Your task to perform on an android device: allow cookies in the chrome app Image 0: 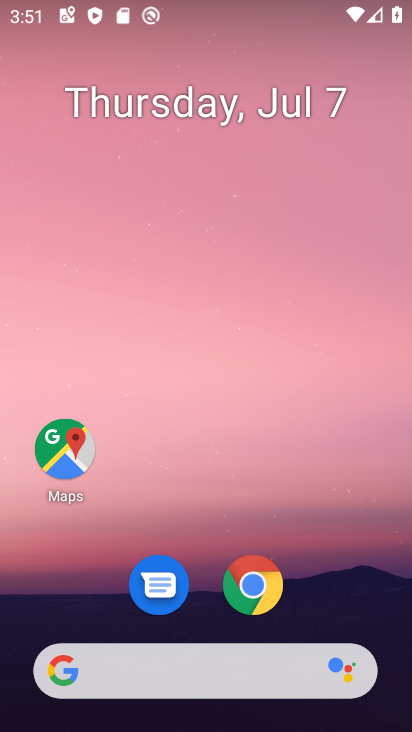
Step 0: click (261, 582)
Your task to perform on an android device: allow cookies in the chrome app Image 1: 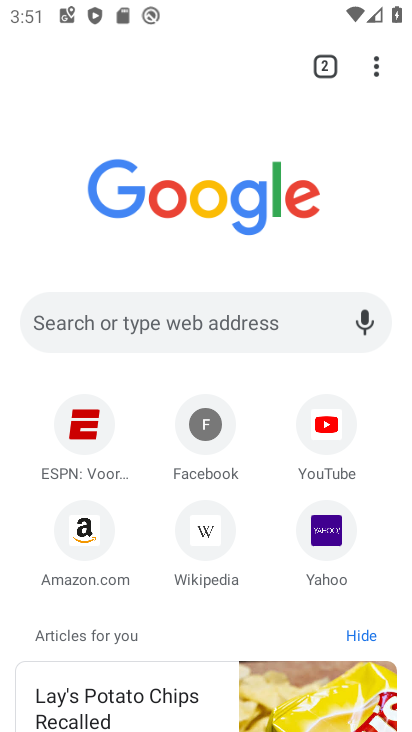
Step 1: click (377, 72)
Your task to perform on an android device: allow cookies in the chrome app Image 2: 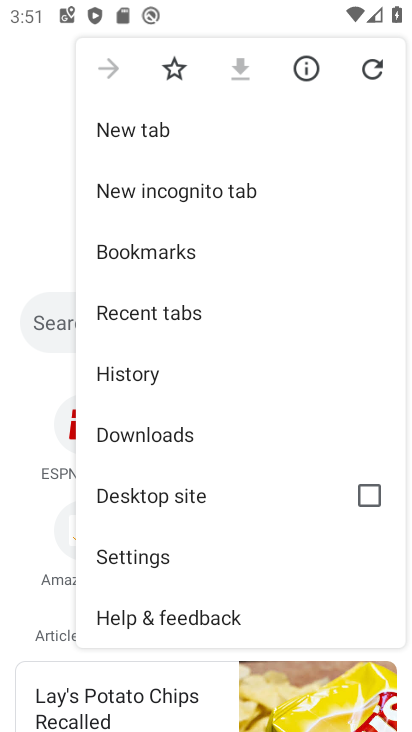
Step 2: click (127, 548)
Your task to perform on an android device: allow cookies in the chrome app Image 3: 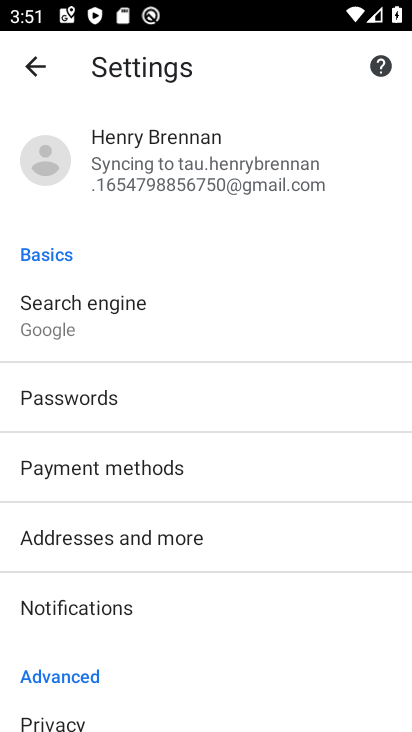
Step 3: drag from (141, 624) to (177, 417)
Your task to perform on an android device: allow cookies in the chrome app Image 4: 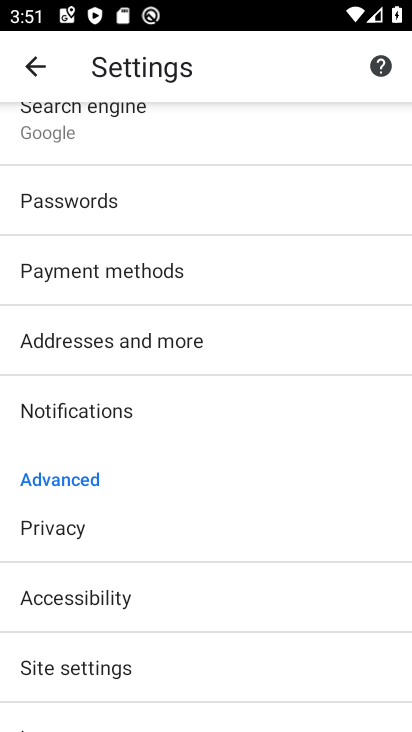
Step 4: click (105, 668)
Your task to perform on an android device: allow cookies in the chrome app Image 5: 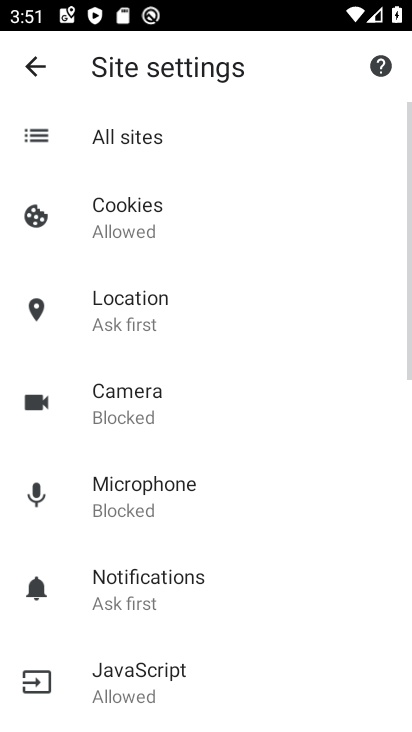
Step 5: click (155, 202)
Your task to perform on an android device: allow cookies in the chrome app Image 6: 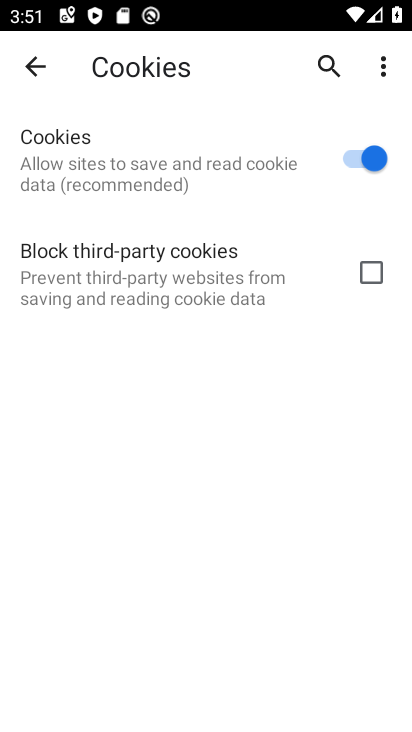
Step 6: task complete